Your task to perform on an android device: see creations saved in the google photos Image 0: 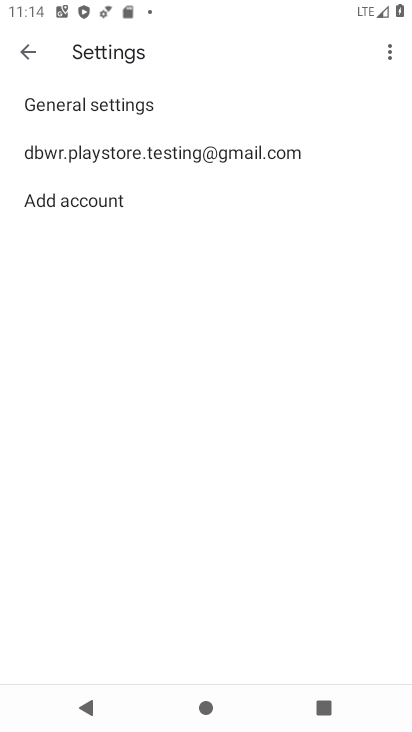
Step 0: press home button
Your task to perform on an android device: see creations saved in the google photos Image 1: 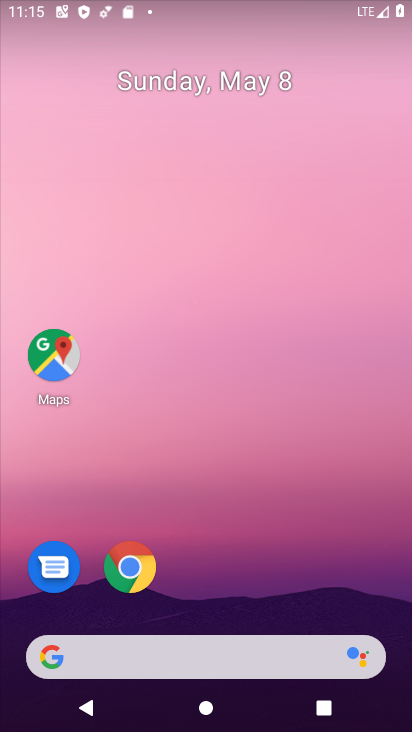
Step 1: drag from (203, 603) to (237, 129)
Your task to perform on an android device: see creations saved in the google photos Image 2: 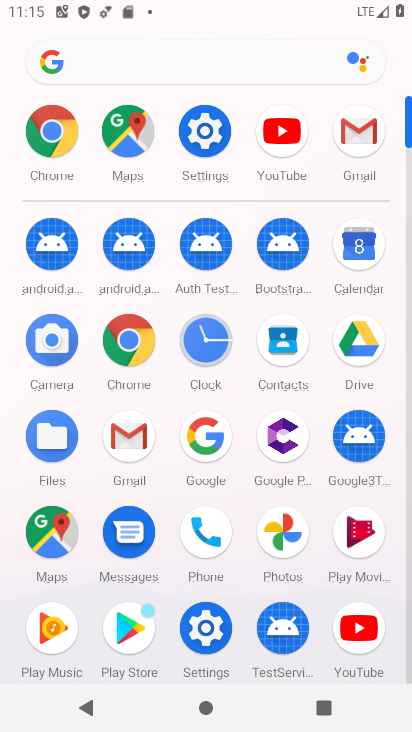
Step 2: click (281, 529)
Your task to perform on an android device: see creations saved in the google photos Image 3: 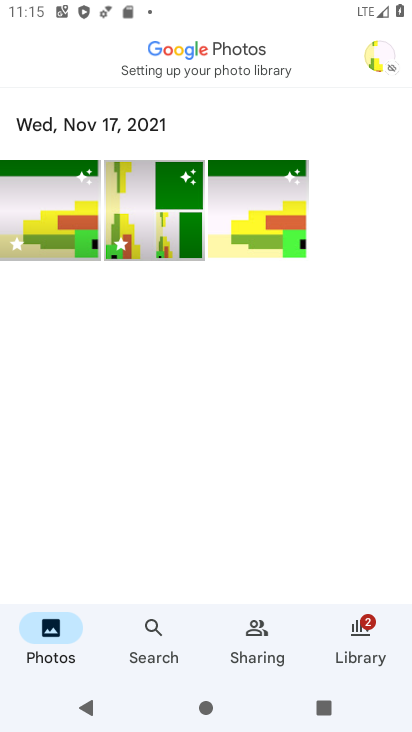
Step 3: click (143, 629)
Your task to perform on an android device: see creations saved in the google photos Image 4: 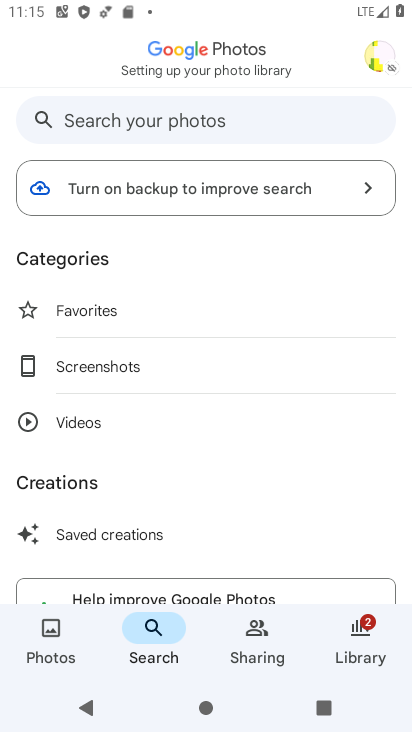
Step 4: click (137, 548)
Your task to perform on an android device: see creations saved in the google photos Image 5: 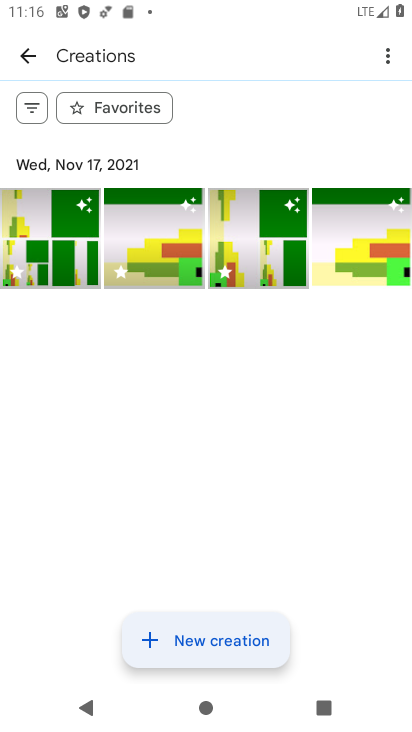
Step 5: task complete